Your task to perform on an android device: Open settings Image 0: 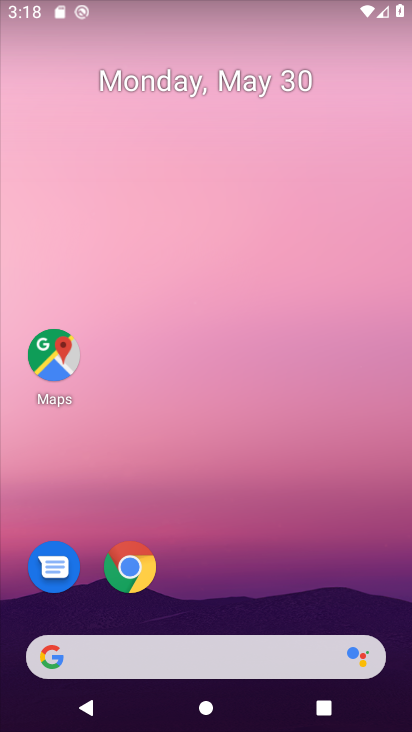
Step 0: drag from (231, 587) to (258, 33)
Your task to perform on an android device: Open settings Image 1: 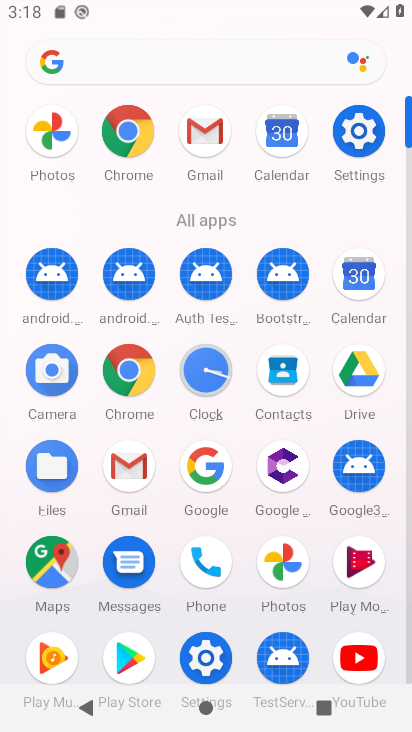
Step 1: click (362, 131)
Your task to perform on an android device: Open settings Image 2: 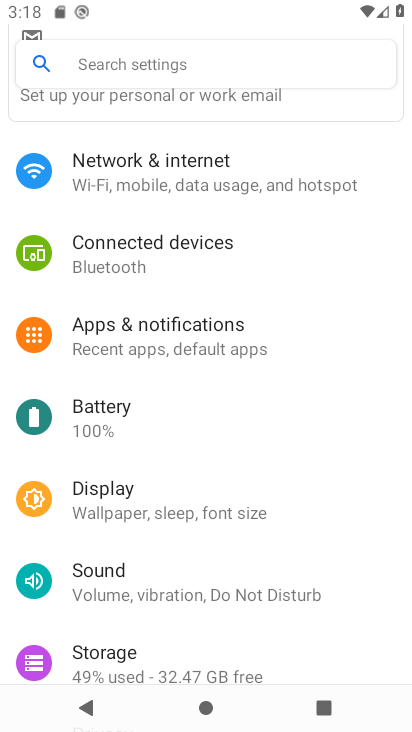
Step 2: task complete